Your task to perform on an android device: Open calendar and show me the fourth week of next month Image 0: 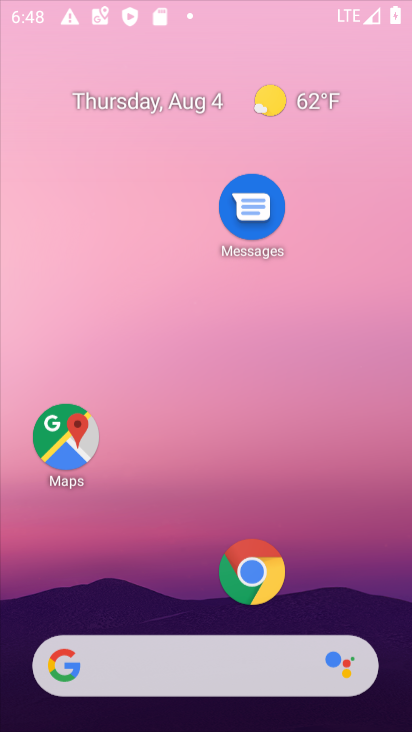
Step 0: press home button
Your task to perform on an android device: Open calendar and show me the fourth week of next month Image 1: 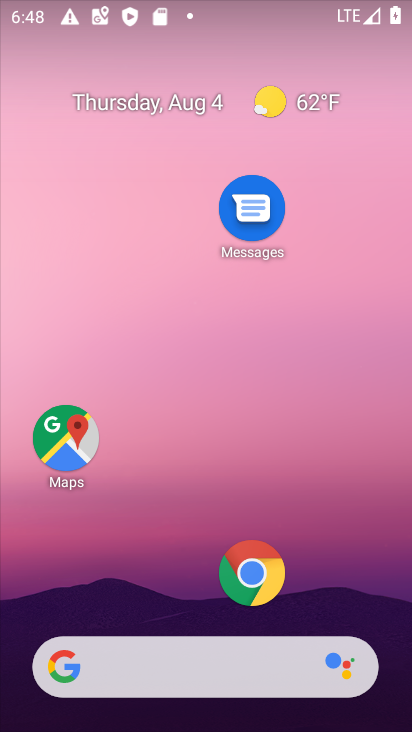
Step 1: drag from (193, 483) to (213, 88)
Your task to perform on an android device: Open calendar and show me the fourth week of next month Image 2: 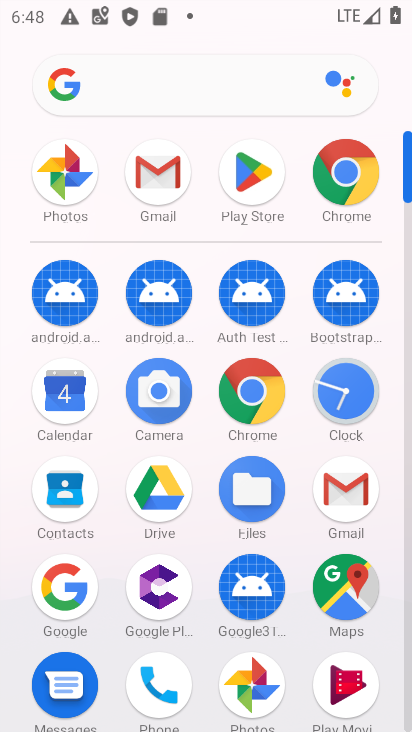
Step 2: click (48, 406)
Your task to perform on an android device: Open calendar and show me the fourth week of next month Image 3: 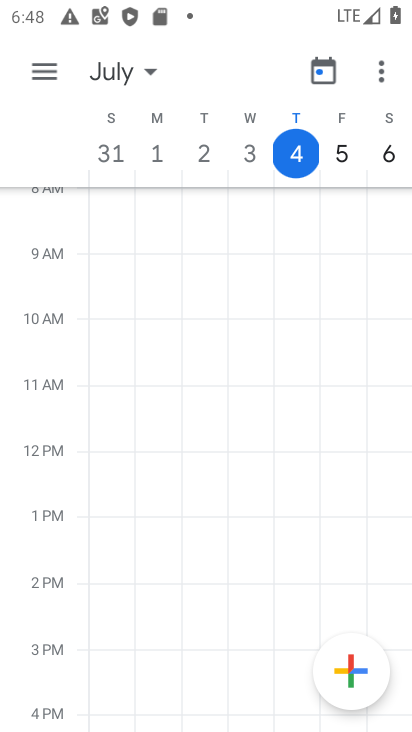
Step 3: click (150, 76)
Your task to perform on an android device: Open calendar and show me the fourth week of next month Image 4: 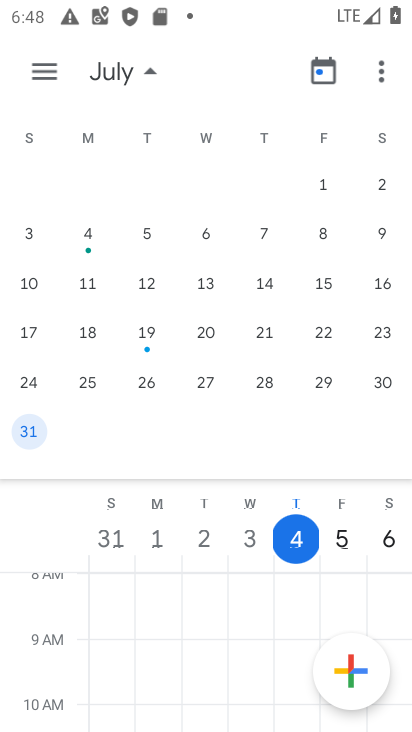
Step 4: task complete